Your task to perform on an android device: Show me popular games on the Play Store Image 0: 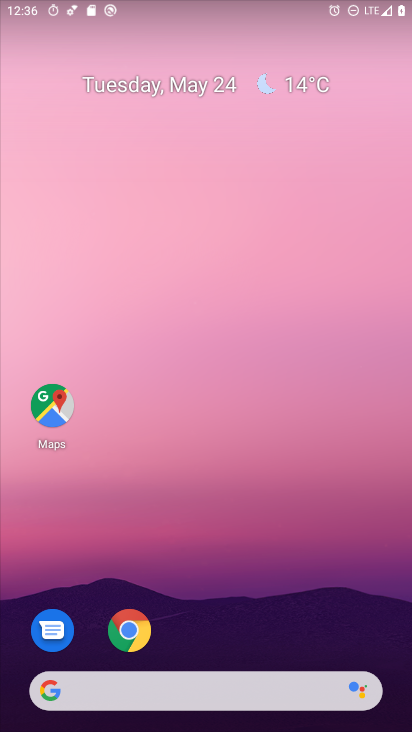
Step 0: drag from (309, 676) to (336, 182)
Your task to perform on an android device: Show me popular games on the Play Store Image 1: 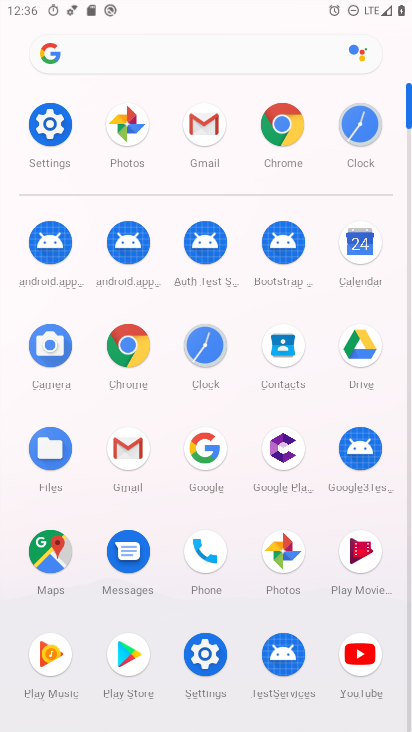
Step 1: click (135, 659)
Your task to perform on an android device: Show me popular games on the Play Store Image 2: 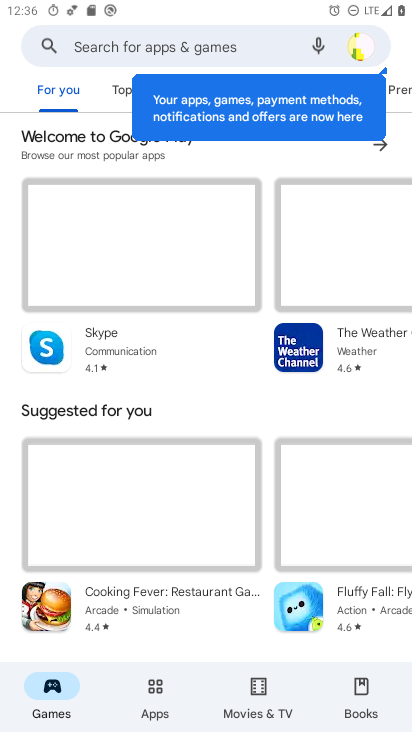
Step 2: drag from (133, 137) to (107, 490)
Your task to perform on an android device: Show me popular games on the Play Store Image 3: 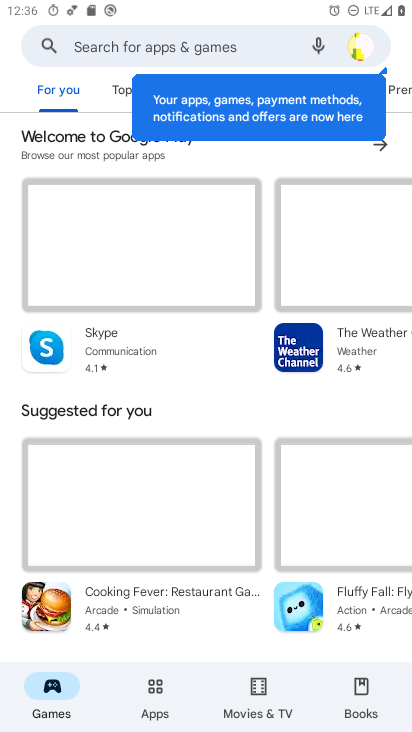
Step 3: click (121, 93)
Your task to perform on an android device: Show me popular games on the Play Store Image 4: 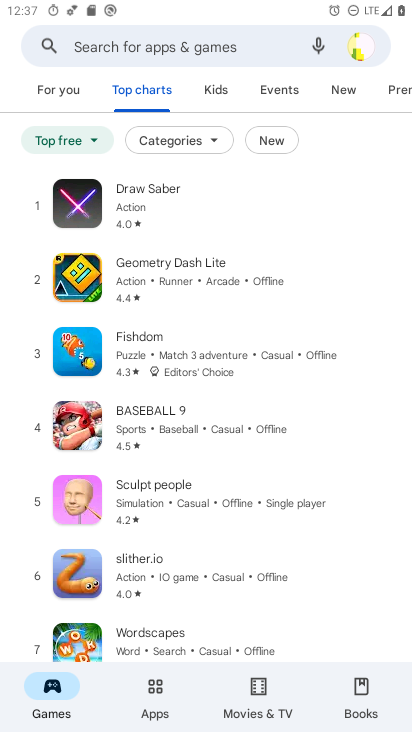
Step 4: task complete